Your task to perform on an android device: Open Google Maps and go to "Timeline" Image 0: 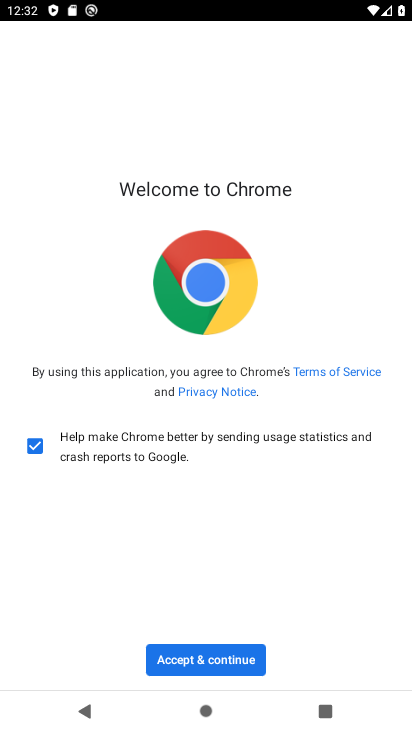
Step 0: press back button
Your task to perform on an android device: Open Google Maps and go to "Timeline" Image 1: 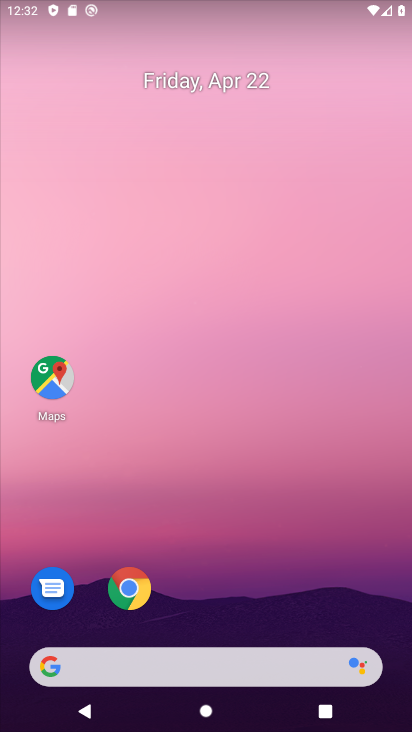
Step 1: click (57, 371)
Your task to perform on an android device: Open Google Maps and go to "Timeline" Image 2: 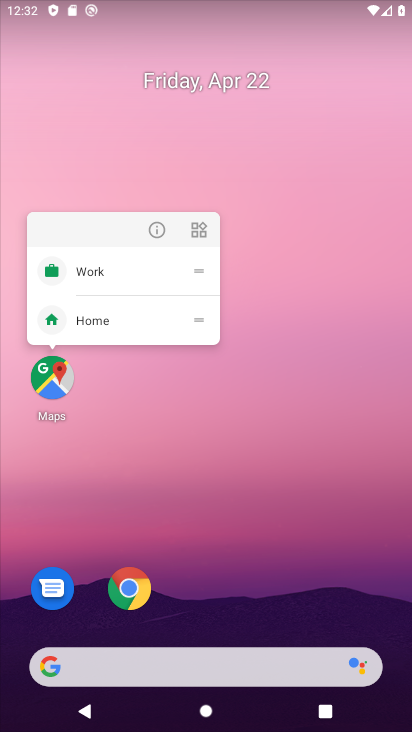
Step 2: click (57, 371)
Your task to perform on an android device: Open Google Maps and go to "Timeline" Image 3: 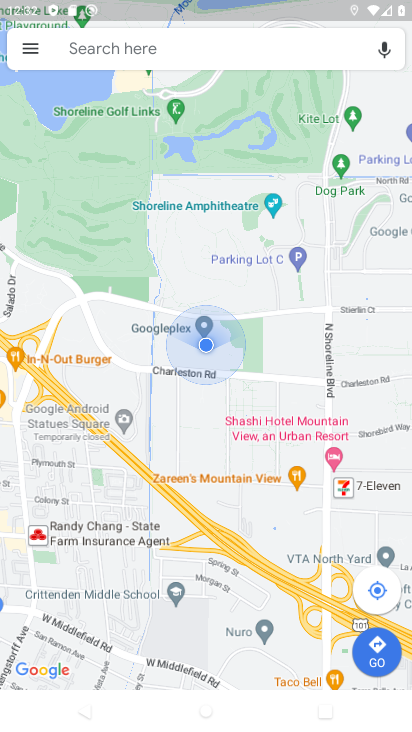
Step 3: click (31, 45)
Your task to perform on an android device: Open Google Maps and go to "Timeline" Image 4: 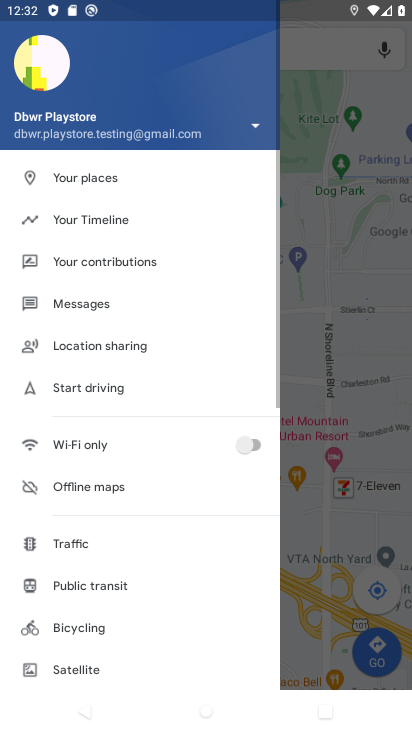
Step 4: click (128, 221)
Your task to perform on an android device: Open Google Maps and go to "Timeline" Image 5: 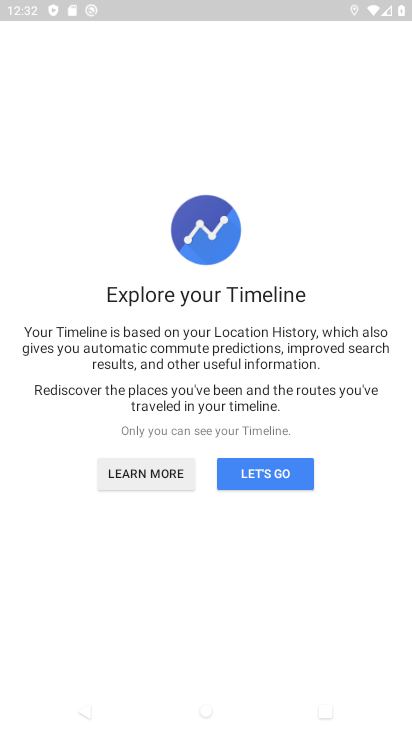
Step 5: click (266, 467)
Your task to perform on an android device: Open Google Maps and go to "Timeline" Image 6: 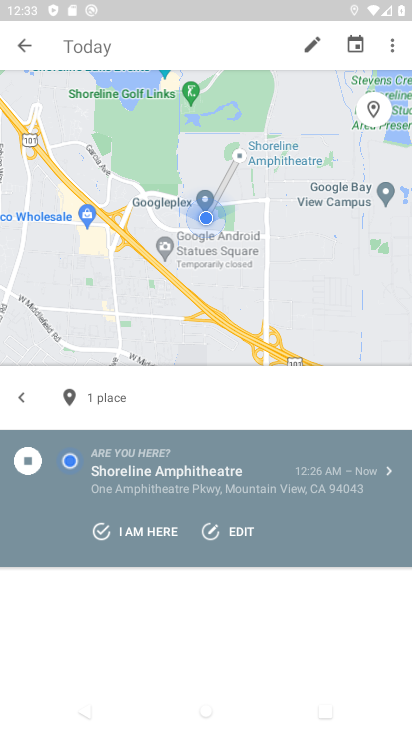
Step 6: task complete